Your task to perform on an android device: star an email in the gmail app Image 0: 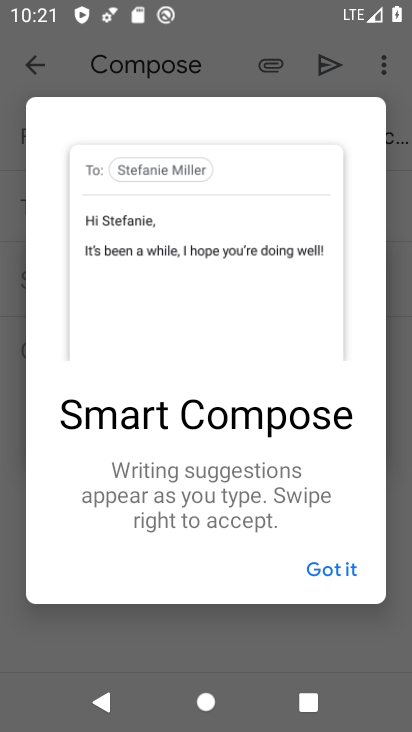
Step 0: press home button
Your task to perform on an android device: star an email in the gmail app Image 1: 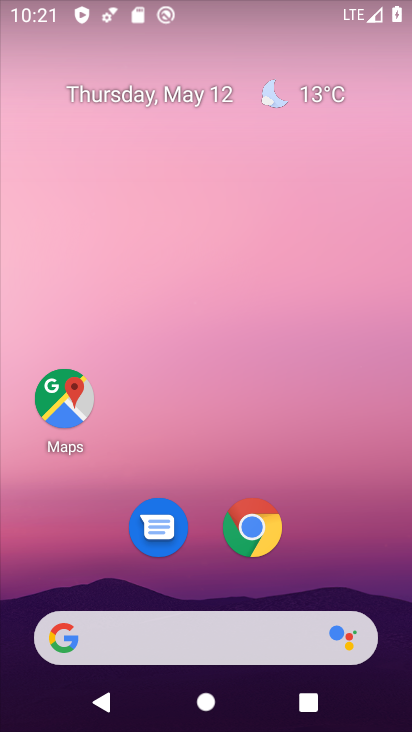
Step 1: drag from (338, 538) to (318, 226)
Your task to perform on an android device: star an email in the gmail app Image 2: 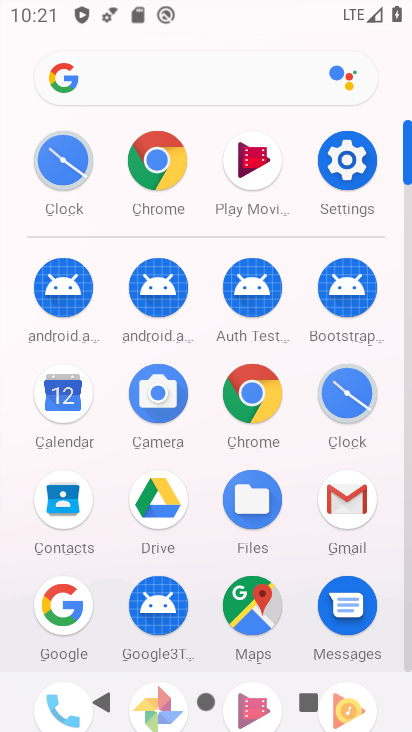
Step 2: click (348, 508)
Your task to perform on an android device: star an email in the gmail app Image 3: 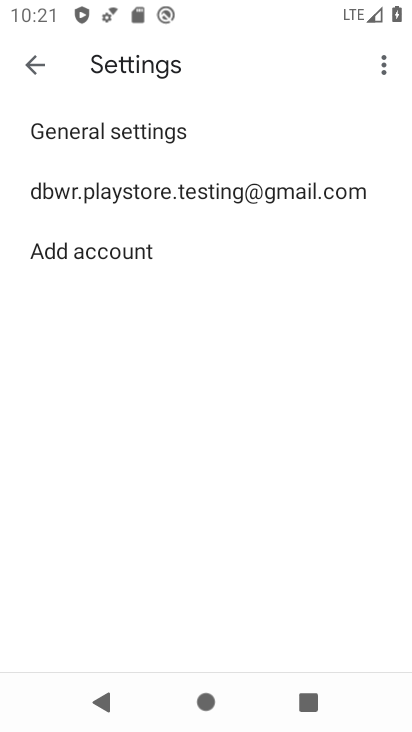
Step 3: click (226, 185)
Your task to perform on an android device: star an email in the gmail app Image 4: 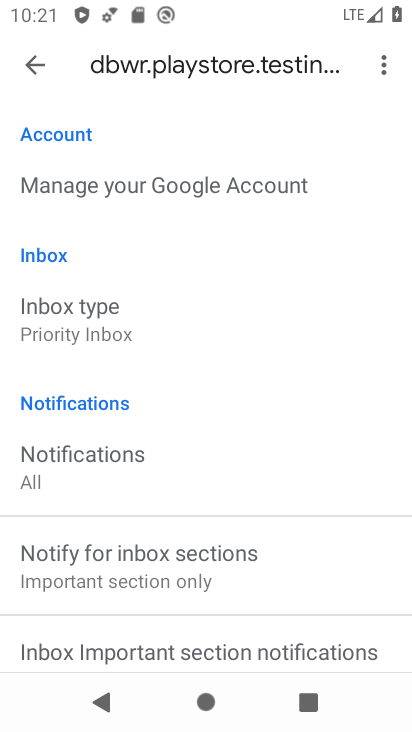
Step 4: click (32, 62)
Your task to perform on an android device: star an email in the gmail app Image 5: 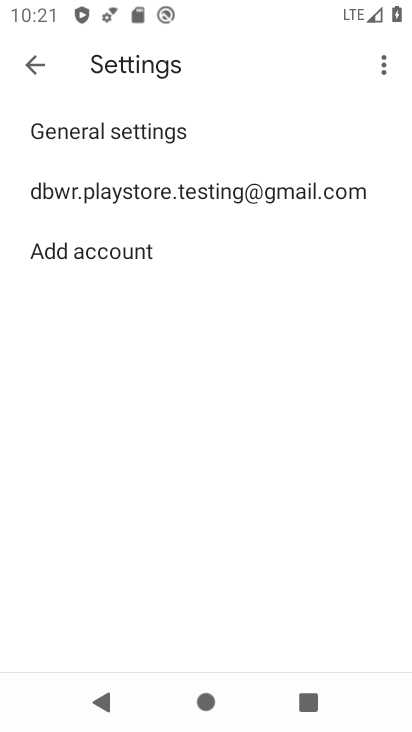
Step 5: press back button
Your task to perform on an android device: star an email in the gmail app Image 6: 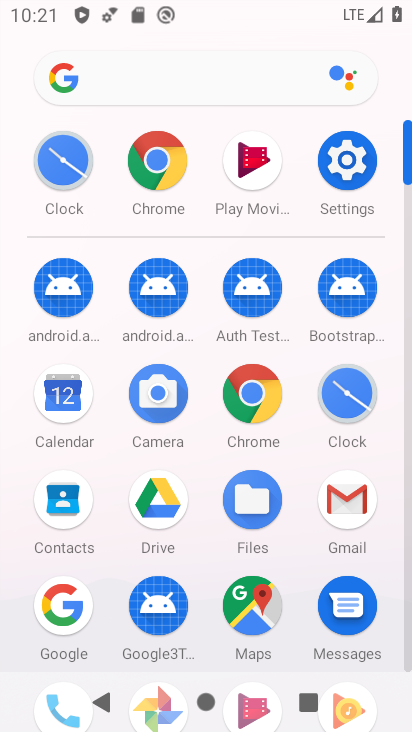
Step 6: click (358, 509)
Your task to perform on an android device: star an email in the gmail app Image 7: 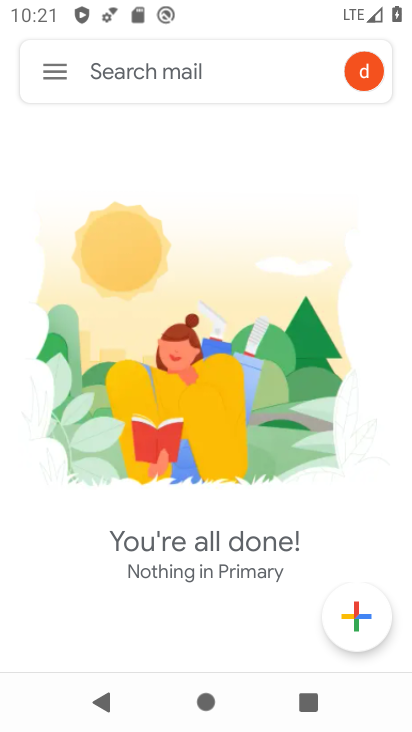
Step 7: click (62, 71)
Your task to perform on an android device: star an email in the gmail app Image 8: 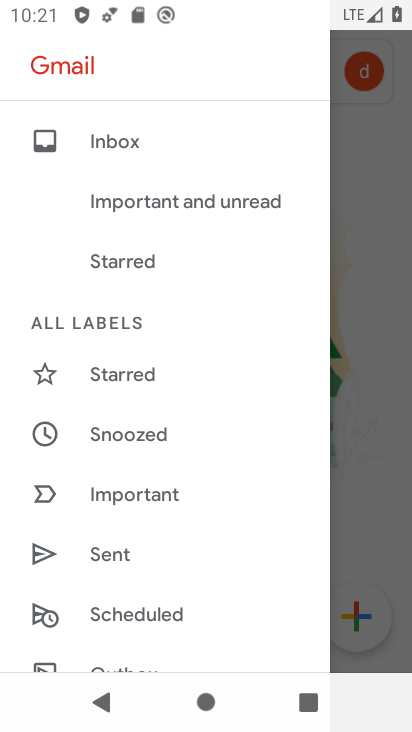
Step 8: click (135, 380)
Your task to perform on an android device: star an email in the gmail app Image 9: 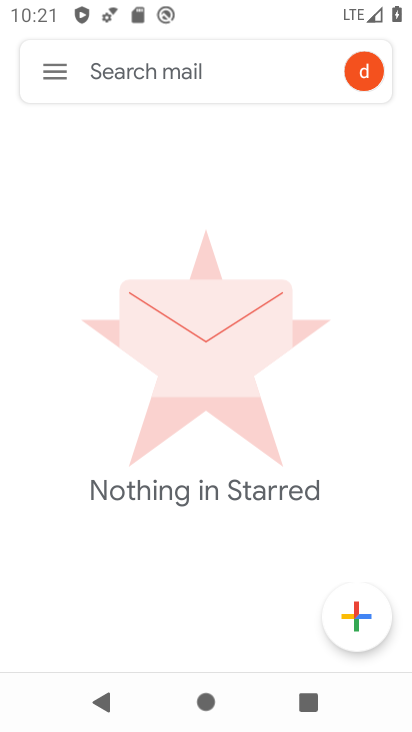
Step 9: task complete